Your task to perform on an android device: Open Amazon Image 0: 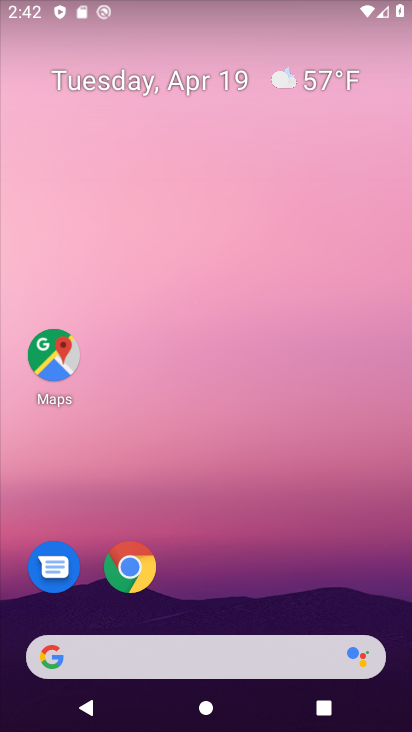
Step 0: drag from (386, 589) to (356, 90)
Your task to perform on an android device: Open Amazon Image 1: 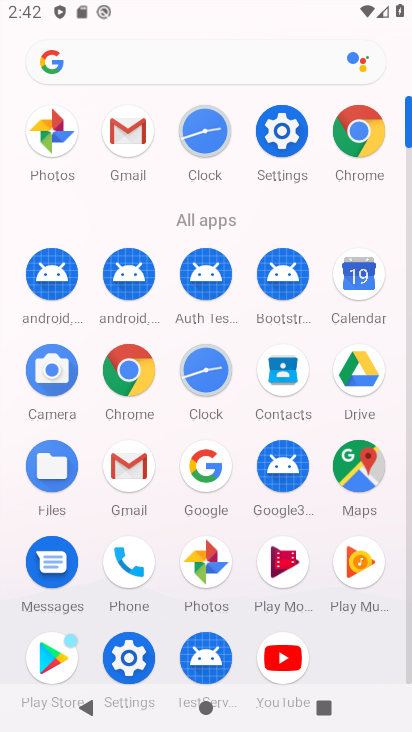
Step 1: click (371, 133)
Your task to perform on an android device: Open Amazon Image 2: 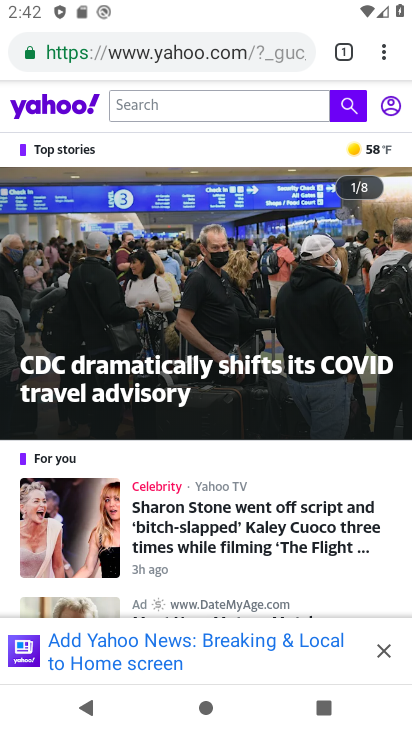
Step 2: press back button
Your task to perform on an android device: Open Amazon Image 3: 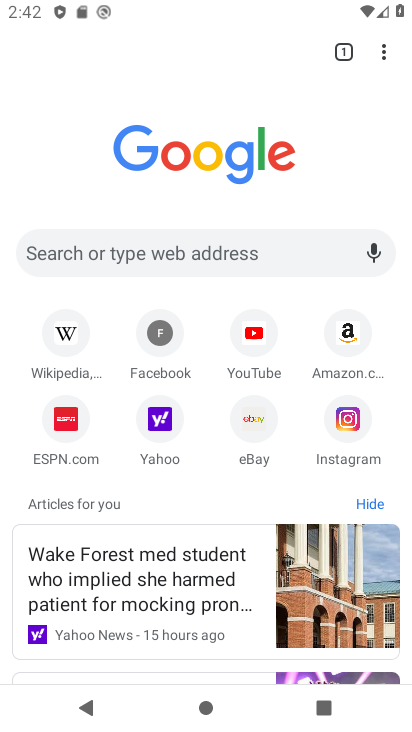
Step 3: click (344, 341)
Your task to perform on an android device: Open Amazon Image 4: 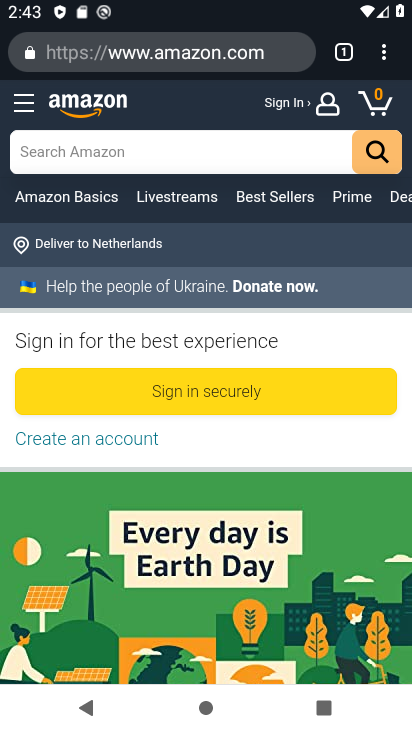
Step 4: task complete